Your task to perform on an android device: Open Google Chrome and open the bookmarks view Image 0: 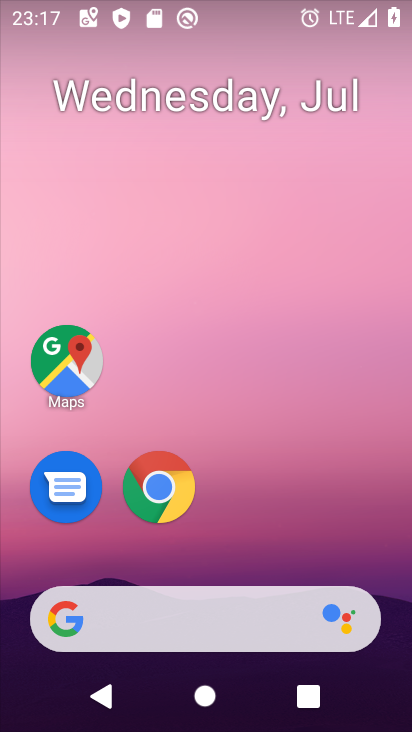
Step 0: click (139, 492)
Your task to perform on an android device: Open Google Chrome and open the bookmarks view Image 1: 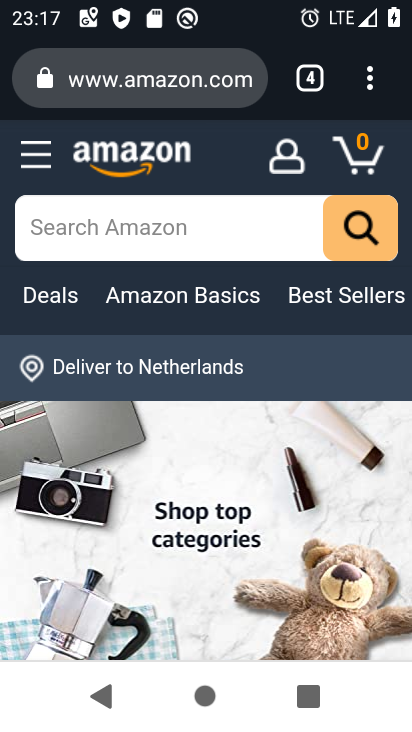
Step 1: task complete